Your task to perform on an android device: Open battery settings Image 0: 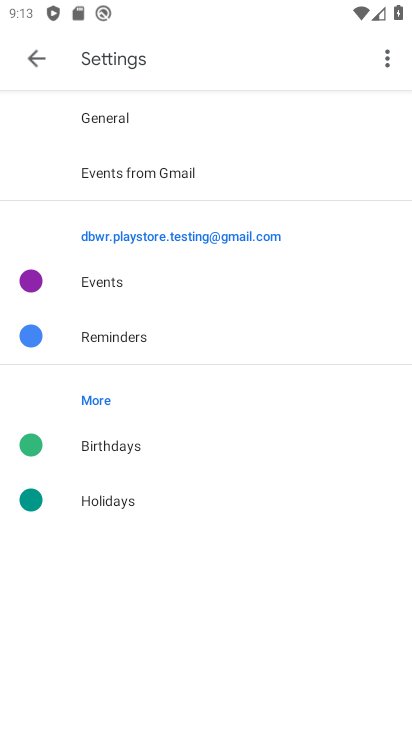
Step 0: press back button
Your task to perform on an android device: Open battery settings Image 1: 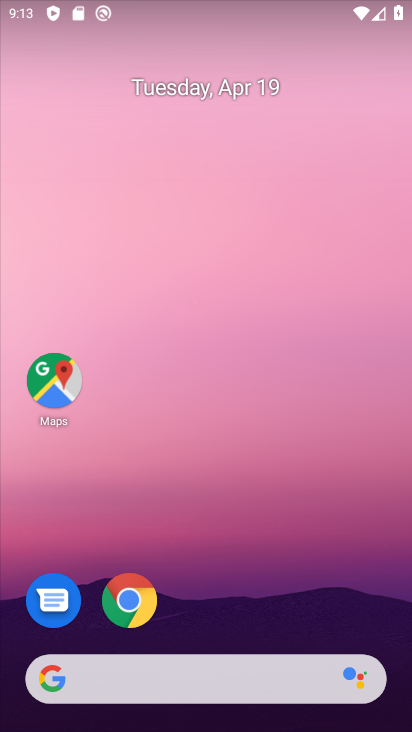
Step 1: drag from (350, 599) to (324, 159)
Your task to perform on an android device: Open battery settings Image 2: 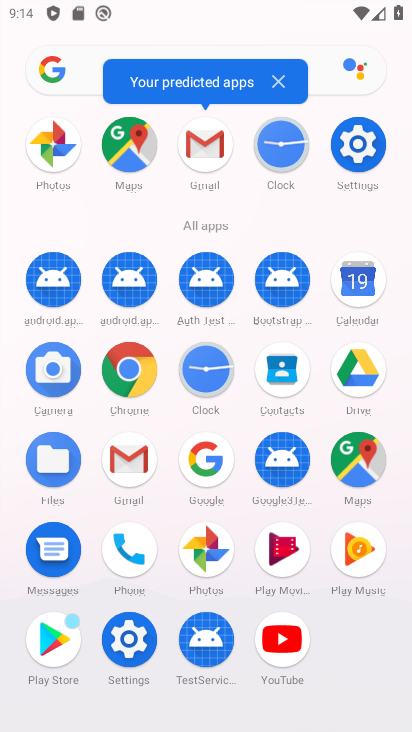
Step 2: click (359, 164)
Your task to perform on an android device: Open battery settings Image 3: 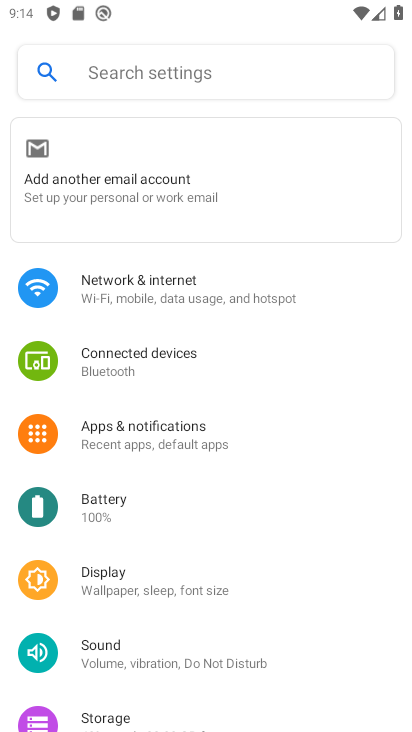
Step 3: click (282, 498)
Your task to perform on an android device: Open battery settings Image 4: 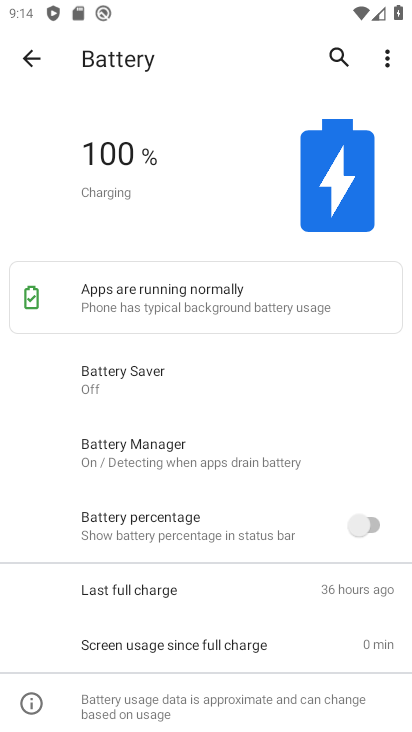
Step 4: task complete